Your task to perform on an android device: Is it going to rain this weekend? Image 0: 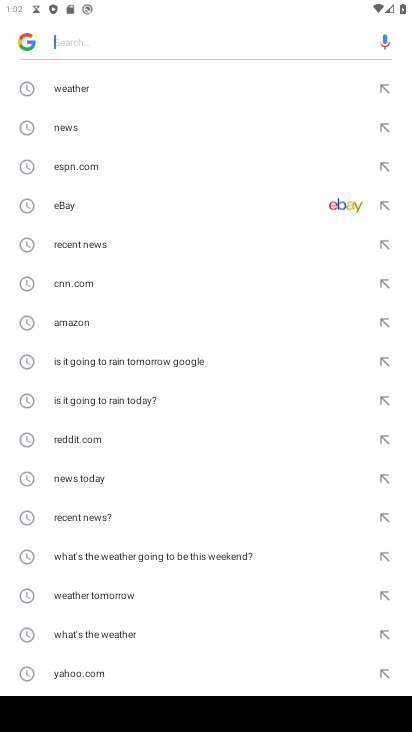
Step 0: click (114, 89)
Your task to perform on an android device: Is it going to rain this weekend? Image 1: 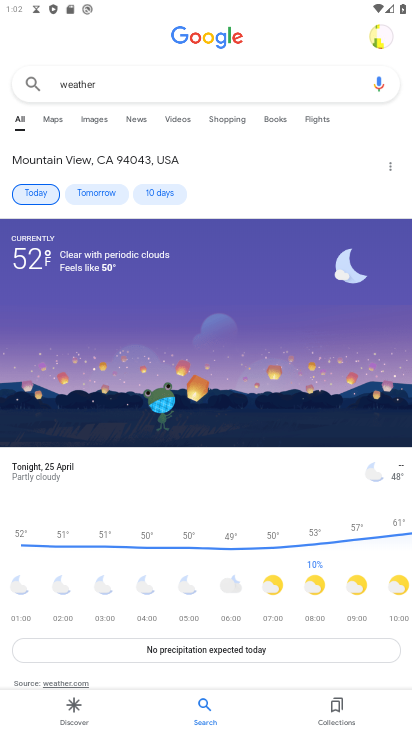
Step 1: click (160, 203)
Your task to perform on an android device: Is it going to rain this weekend? Image 2: 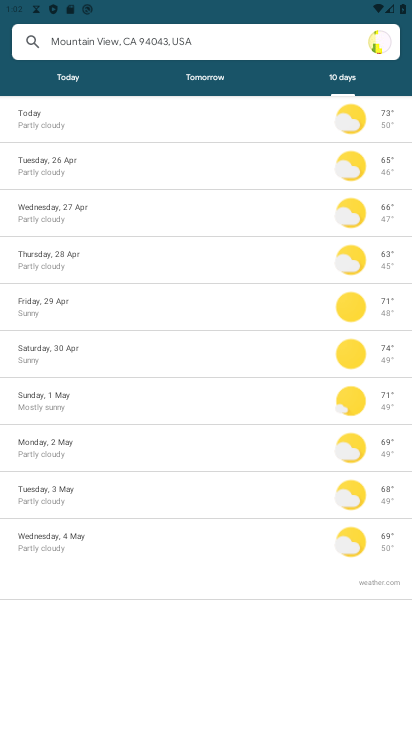
Step 2: task complete